Your task to perform on an android device: empty trash in google photos Image 0: 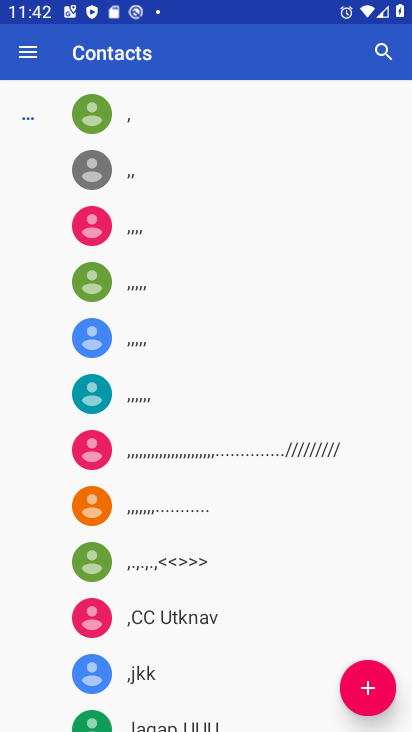
Step 0: press home button
Your task to perform on an android device: empty trash in google photos Image 1: 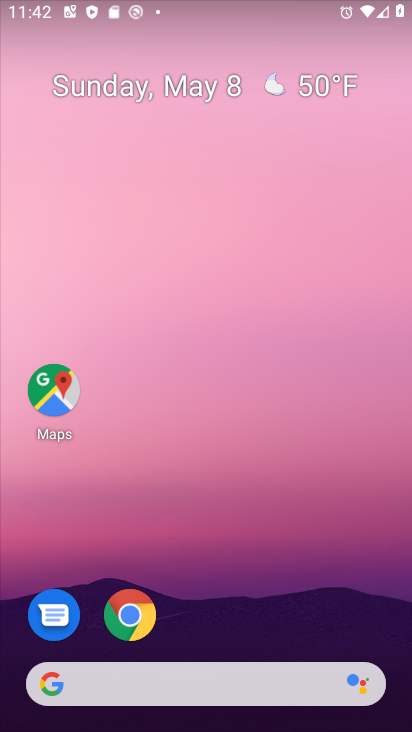
Step 1: drag from (180, 719) to (310, 130)
Your task to perform on an android device: empty trash in google photos Image 2: 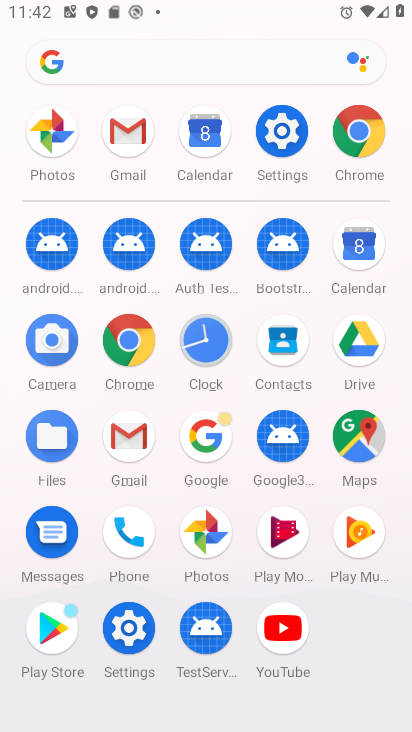
Step 2: click (218, 534)
Your task to perform on an android device: empty trash in google photos Image 3: 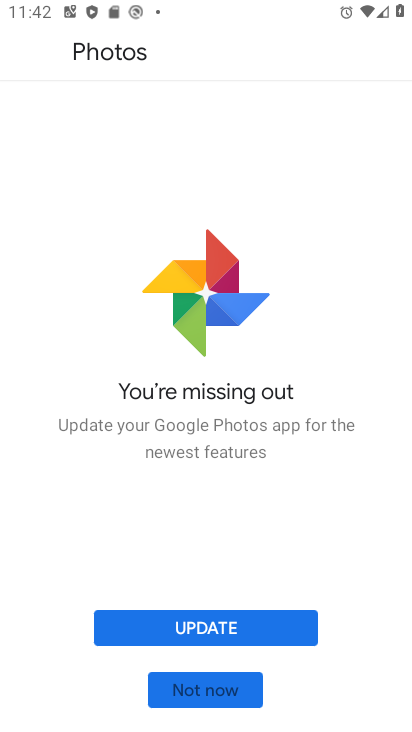
Step 3: click (197, 687)
Your task to perform on an android device: empty trash in google photos Image 4: 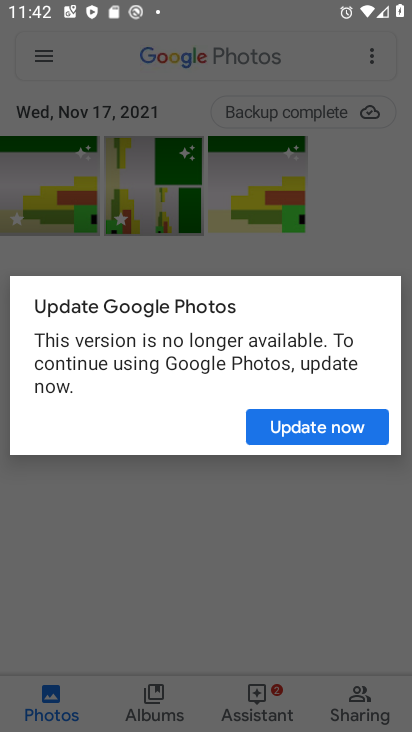
Step 4: click (327, 411)
Your task to perform on an android device: empty trash in google photos Image 5: 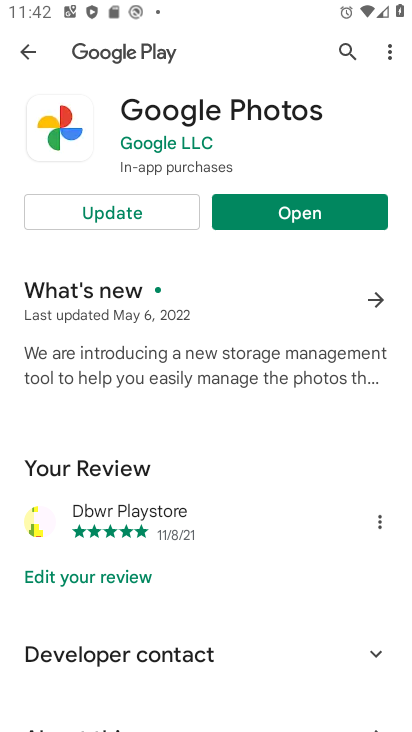
Step 5: click (266, 221)
Your task to perform on an android device: empty trash in google photos Image 6: 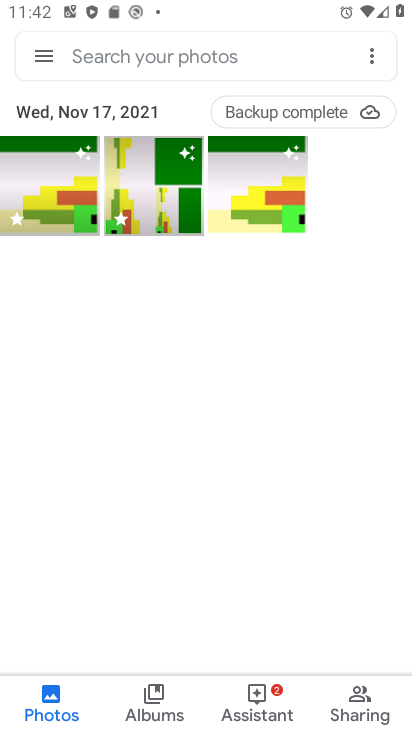
Step 6: click (120, 67)
Your task to perform on an android device: empty trash in google photos Image 7: 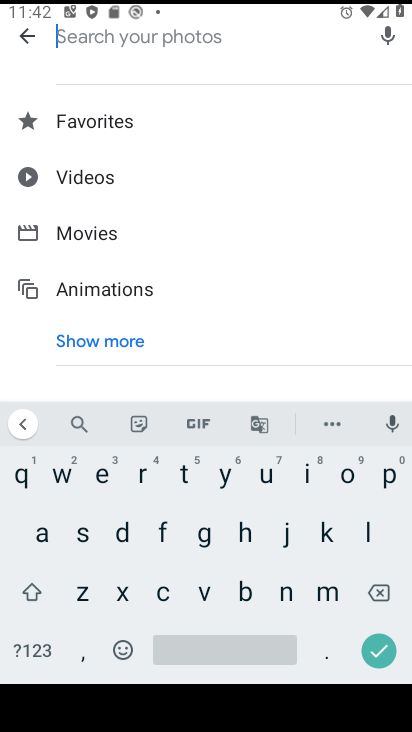
Step 7: click (184, 475)
Your task to perform on an android device: empty trash in google photos Image 8: 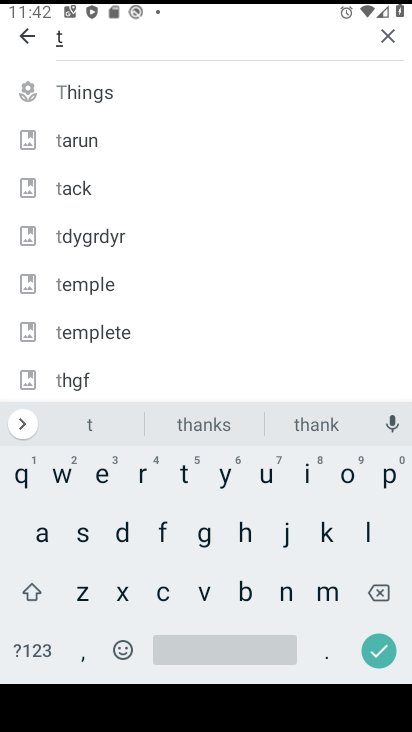
Step 8: click (141, 480)
Your task to perform on an android device: empty trash in google photos Image 9: 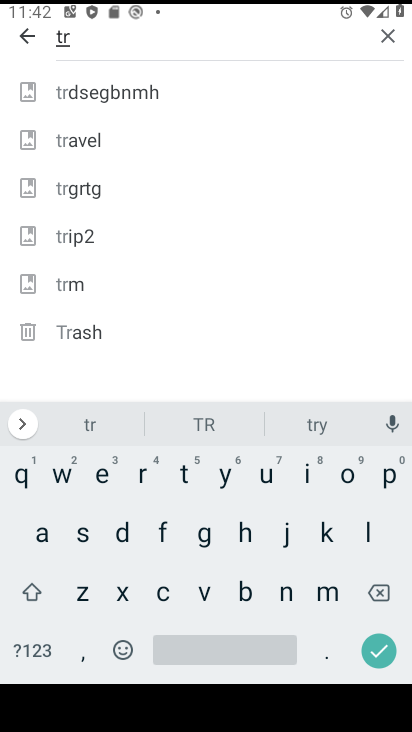
Step 9: click (87, 329)
Your task to perform on an android device: empty trash in google photos Image 10: 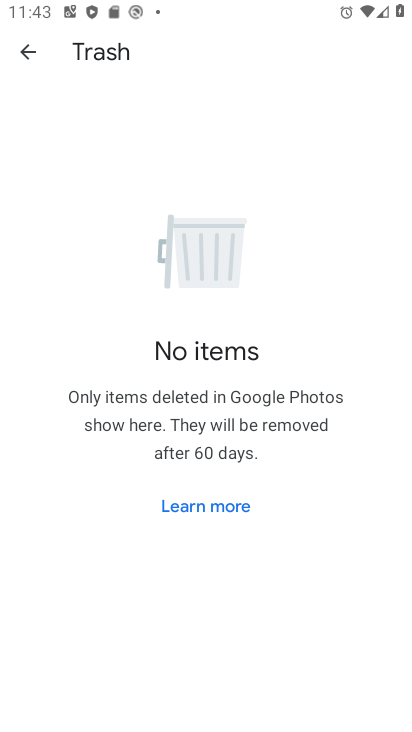
Step 10: task complete